Your task to perform on an android device: find which apps use the phone's location Image 0: 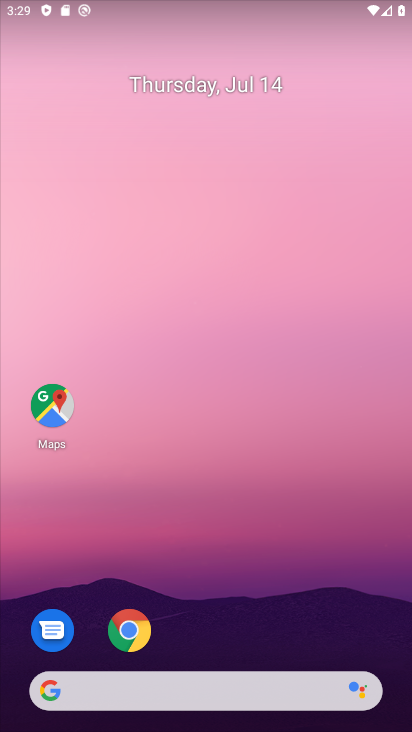
Step 0: drag from (199, 726) to (202, 56)
Your task to perform on an android device: find which apps use the phone's location Image 1: 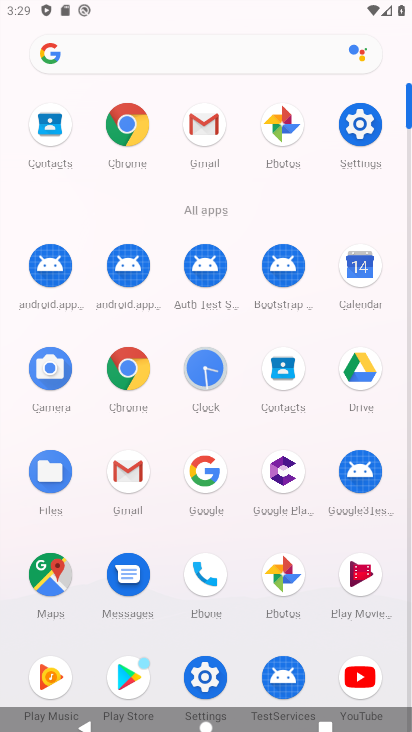
Step 1: click (359, 128)
Your task to perform on an android device: find which apps use the phone's location Image 2: 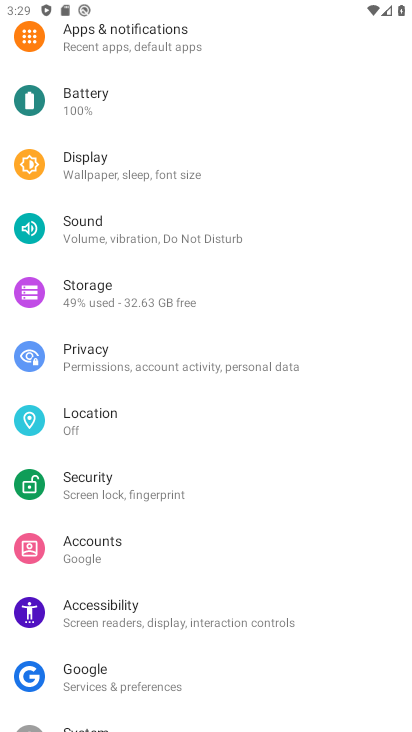
Step 2: click (91, 415)
Your task to perform on an android device: find which apps use the phone's location Image 3: 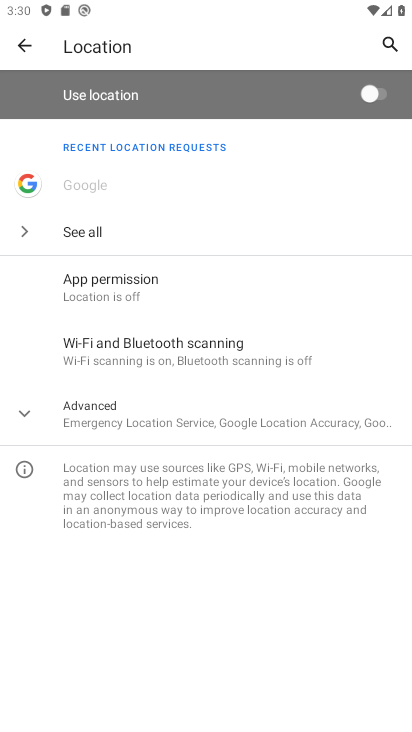
Step 3: click (122, 292)
Your task to perform on an android device: find which apps use the phone's location Image 4: 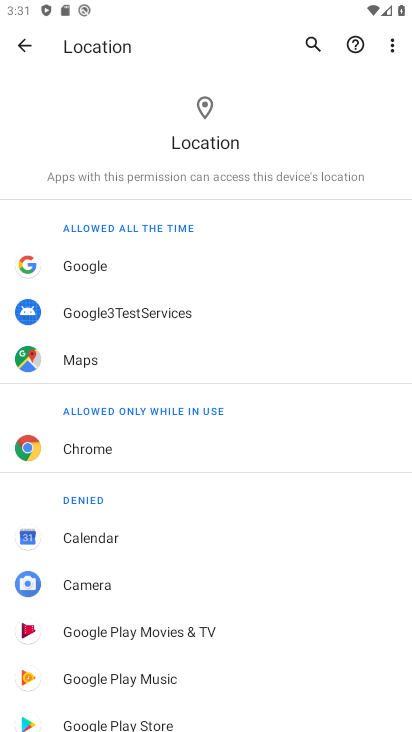
Step 4: task complete